Your task to perform on an android device: delete browsing data in the chrome app Image 0: 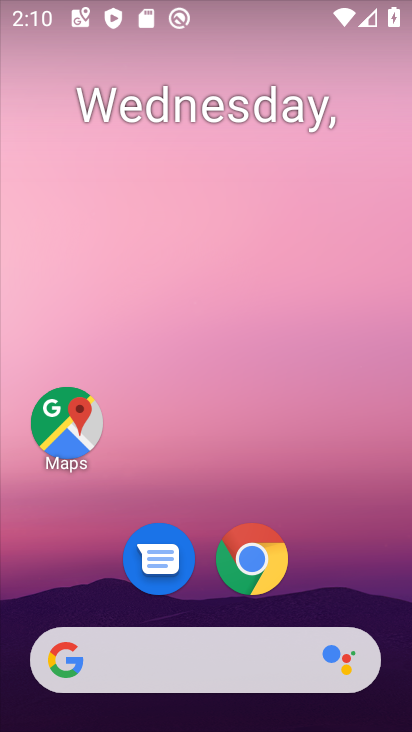
Step 0: press home button
Your task to perform on an android device: delete browsing data in the chrome app Image 1: 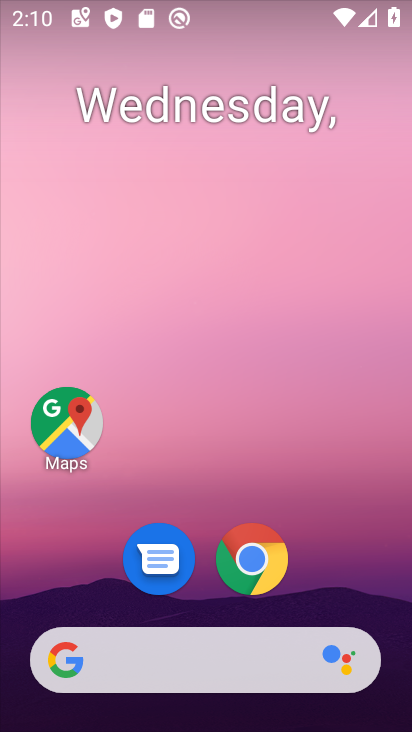
Step 1: click (229, 574)
Your task to perform on an android device: delete browsing data in the chrome app Image 2: 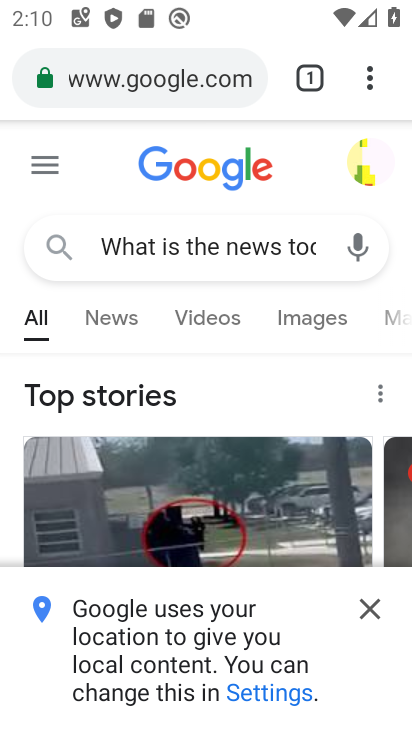
Step 2: drag from (368, 71) to (122, 633)
Your task to perform on an android device: delete browsing data in the chrome app Image 3: 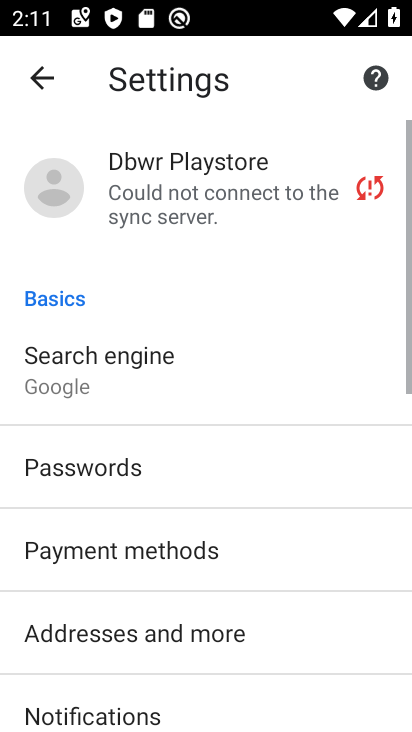
Step 3: drag from (263, 611) to (232, 158)
Your task to perform on an android device: delete browsing data in the chrome app Image 4: 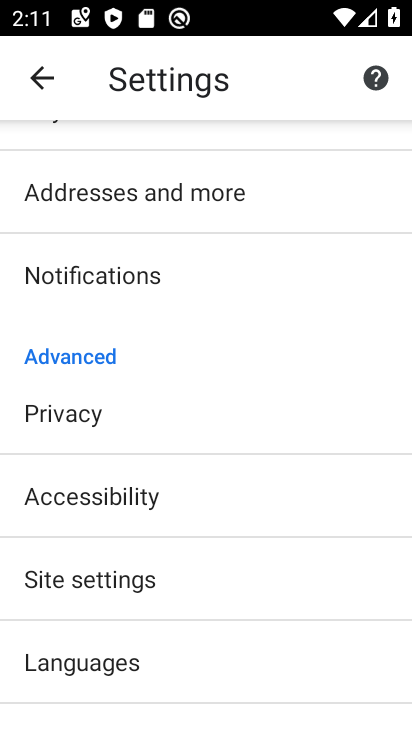
Step 4: drag from (246, 537) to (159, 228)
Your task to perform on an android device: delete browsing data in the chrome app Image 5: 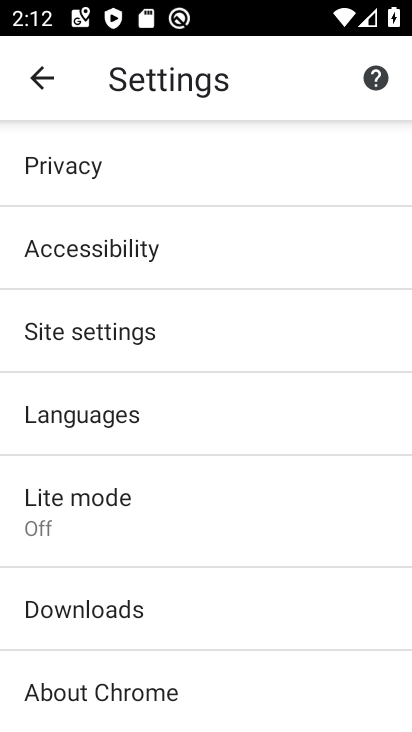
Step 5: click (196, 171)
Your task to perform on an android device: delete browsing data in the chrome app Image 6: 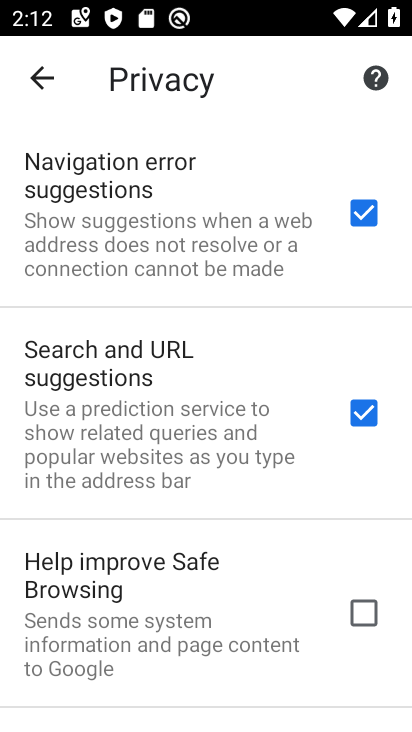
Step 6: drag from (263, 626) to (173, 222)
Your task to perform on an android device: delete browsing data in the chrome app Image 7: 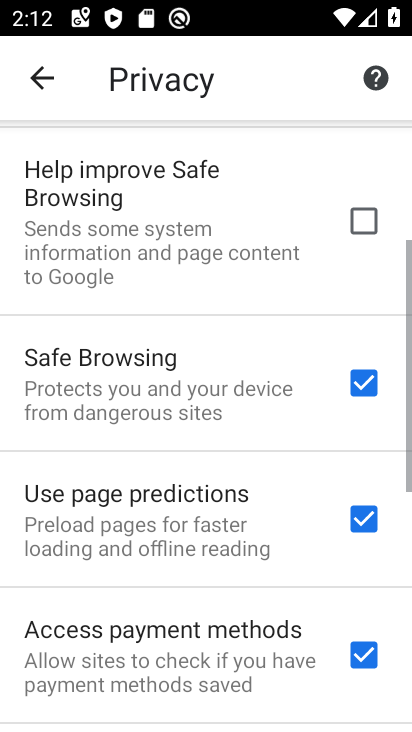
Step 7: drag from (283, 679) to (293, 320)
Your task to perform on an android device: delete browsing data in the chrome app Image 8: 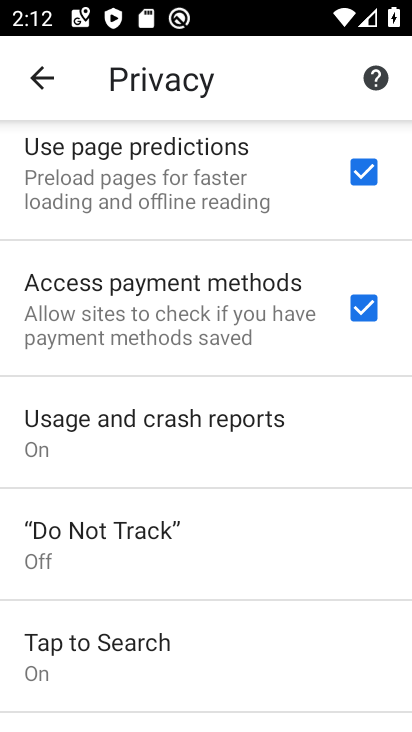
Step 8: drag from (241, 671) to (239, 160)
Your task to perform on an android device: delete browsing data in the chrome app Image 9: 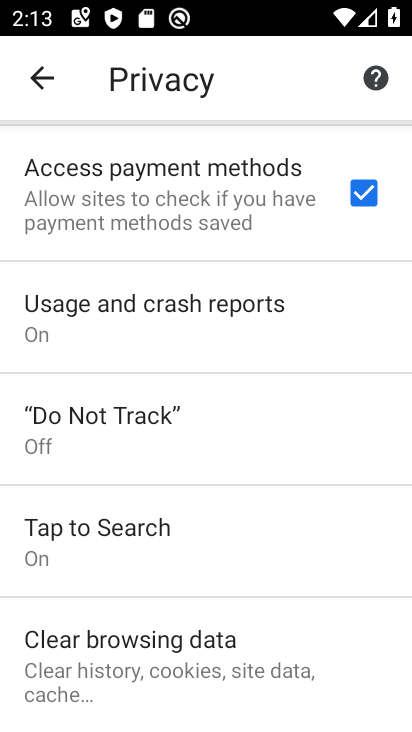
Step 9: click (47, 679)
Your task to perform on an android device: delete browsing data in the chrome app Image 10: 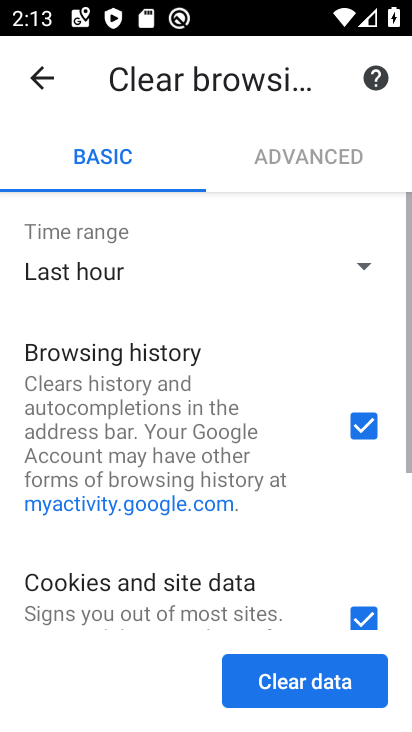
Step 10: click (290, 692)
Your task to perform on an android device: delete browsing data in the chrome app Image 11: 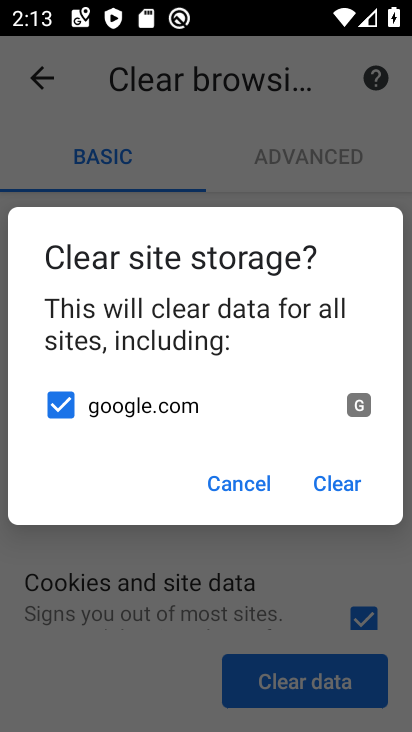
Step 11: click (345, 482)
Your task to perform on an android device: delete browsing data in the chrome app Image 12: 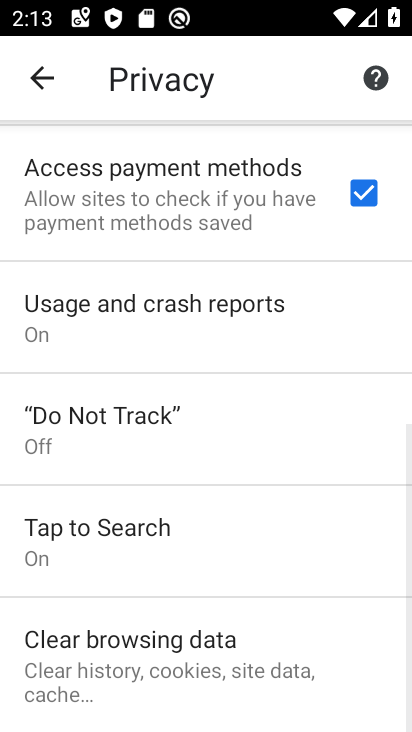
Step 12: task complete